Your task to perform on an android device: What's the weather going to be tomorrow? Image 0: 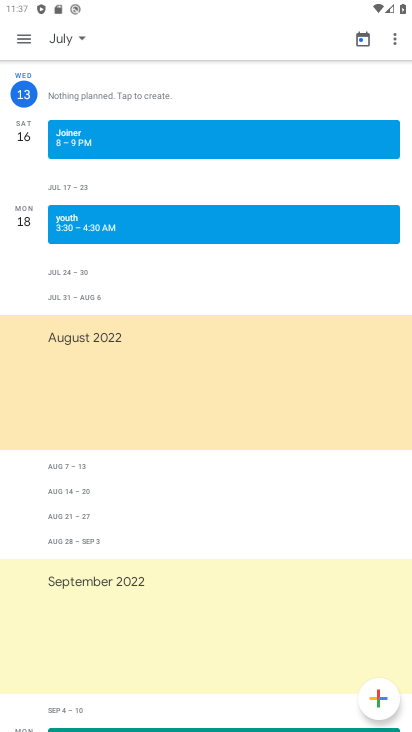
Step 0: press home button
Your task to perform on an android device: What's the weather going to be tomorrow? Image 1: 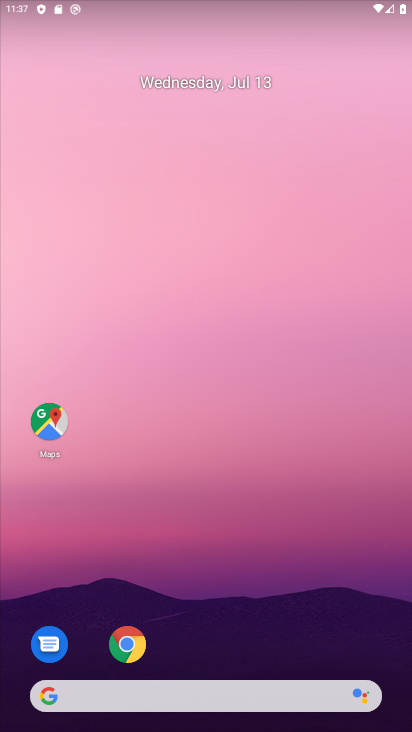
Step 1: drag from (212, 637) to (219, 186)
Your task to perform on an android device: What's the weather going to be tomorrow? Image 2: 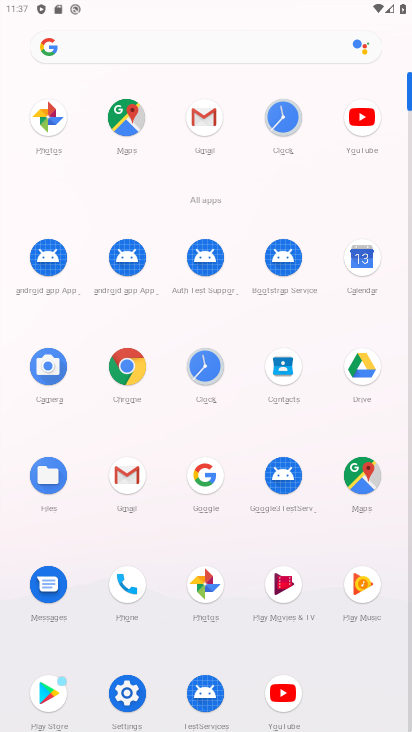
Step 2: click (209, 476)
Your task to perform on an android device: What's the weather going to be tomorrow? Image 3: 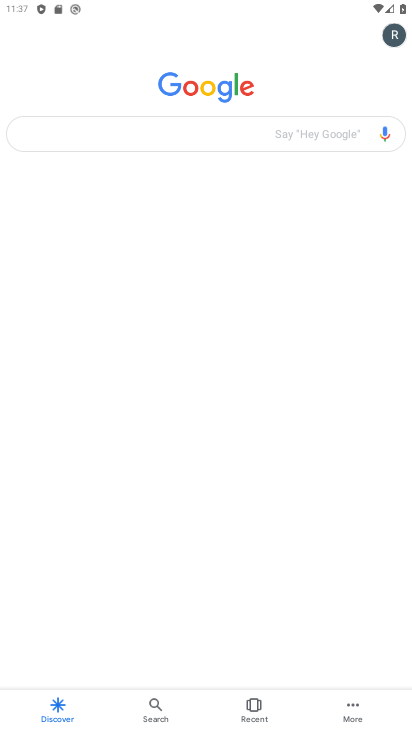
Step 3: click (210, 130)
Your task to perform on an android device: What's the weather going to be tomorrow? Image 4: 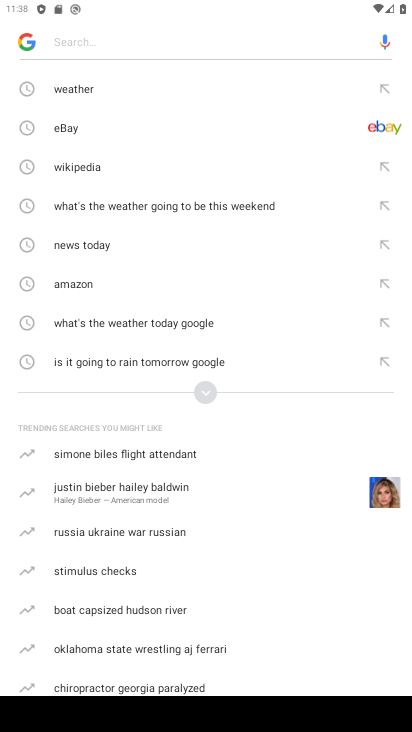
Step 4: type "whats the weather going to be tomorrow?"
Your task to perform on an android device: What's the weather going to be tomorrow? Image 5: 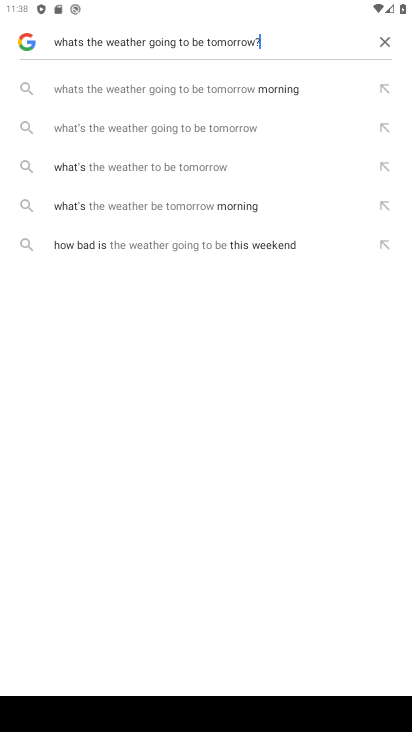
Step 5: click (170, 128)
Your task to perform on an android device: What's the weather going to be tomorrow? Image 6: 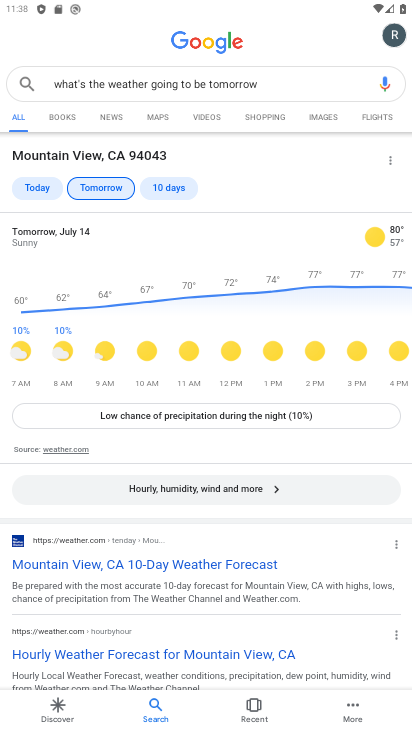
Step 6: task complete